Your task to perform on an android device: turn off airplane mode Image 0: 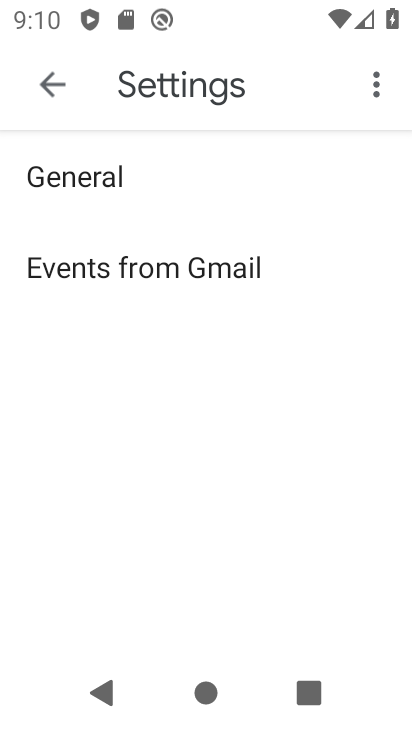
Step 0: press home button
Your task to perform on an android device: turn off airplane mode Image 1: 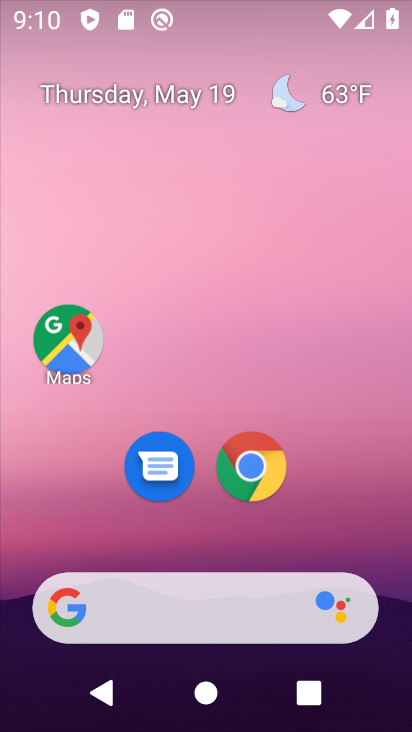
Step 1: task complete